Your task to perform on an android device: toggle improve location accuracy Image 0: 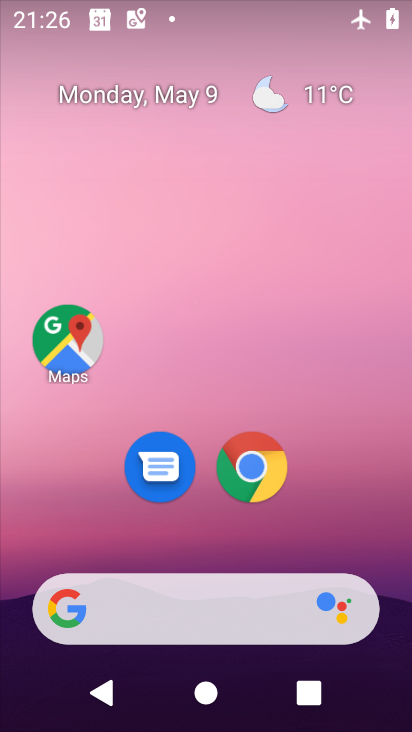
Step 0: drag from (313, 526) to (366, 248)
Your task to perform on an android device: toggle improve location accuracy Image 1: 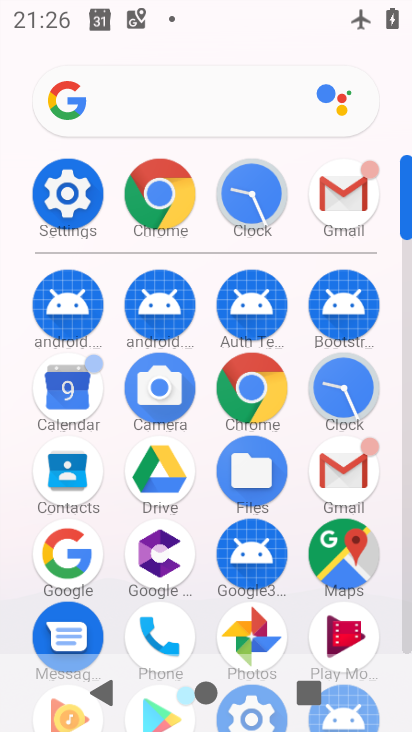
Step 1: click (57, 193)
Your task to perform on an android device: toggle improve location accuracy Image 2: 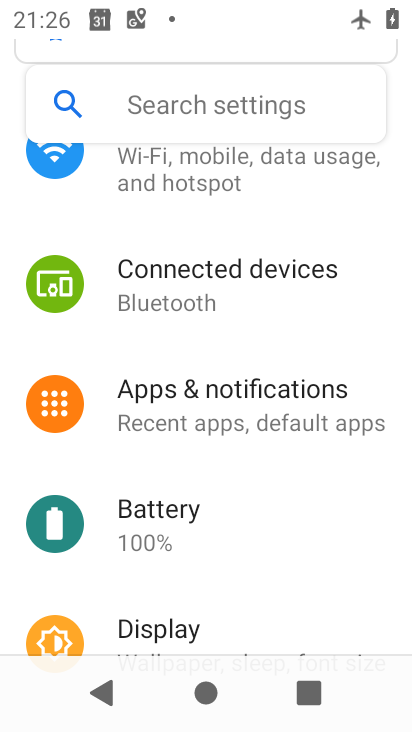
Step 2: drag from (178, 587) to (218, 307)
Your task to perform on an android device: toggle improve location accuracy Image 3: 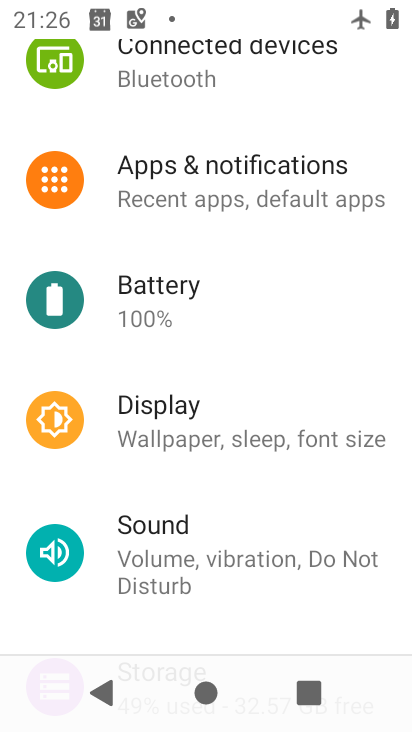
Step 3: drag from (194, 493) to (234, 129)
Your task to perform on an android device: toggle improve location accuracy Image 4: 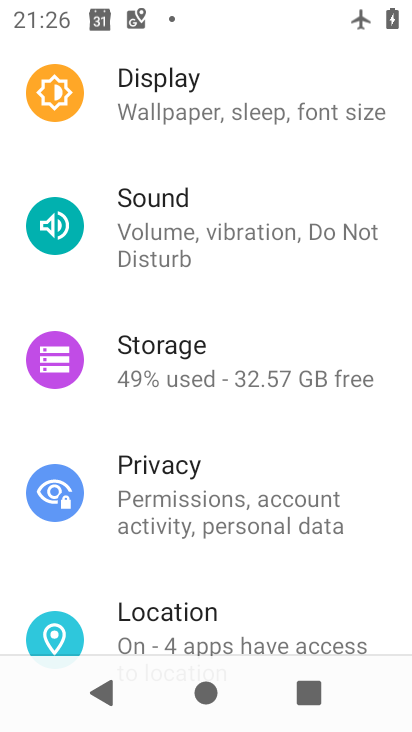
Step 4: drag from (218, 578) to (245, 260)
Your task to perform on an android device: toggle improve location accuracy Image 5: 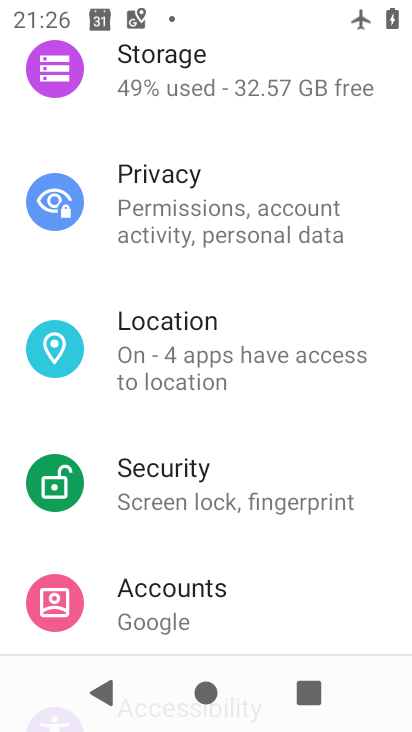
Step 5: click (222, 339)
Your task to perform on an android device: toggle improve location accuracy Image 6: 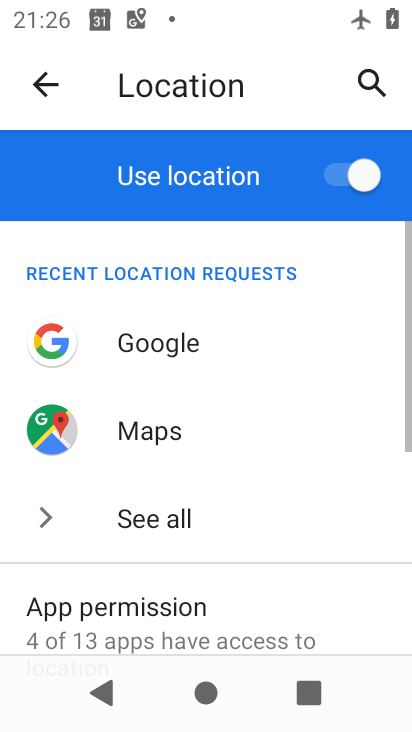
Step 6: drag from (129, 596) to (242, 172)
Your task to perform on an android device: toggle improve location accuracy Image 7: 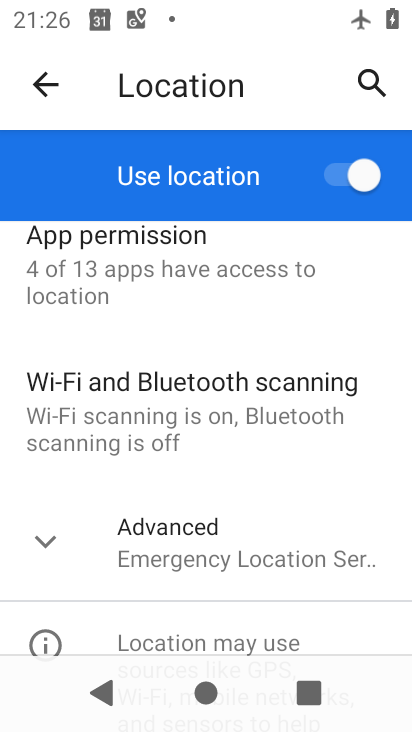
Step 7: click (148, 550)
Your task to perform on an android device: toggle improve location accuracy Image 8: 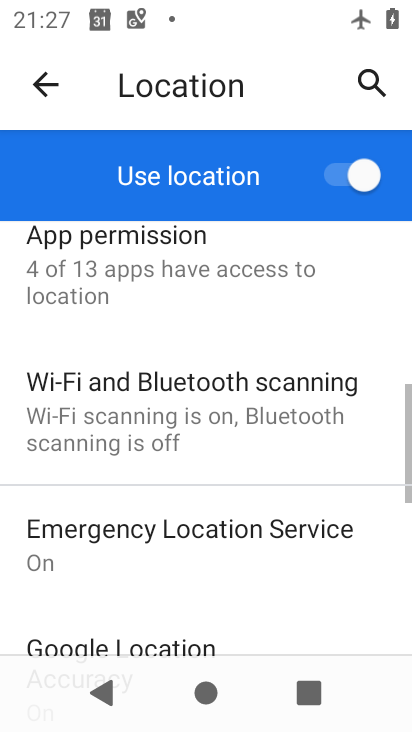
Step 8: drag from (156, 531) to (253, 218)
Your task to perform on an android device: toggle improve location accuracy Image 9: 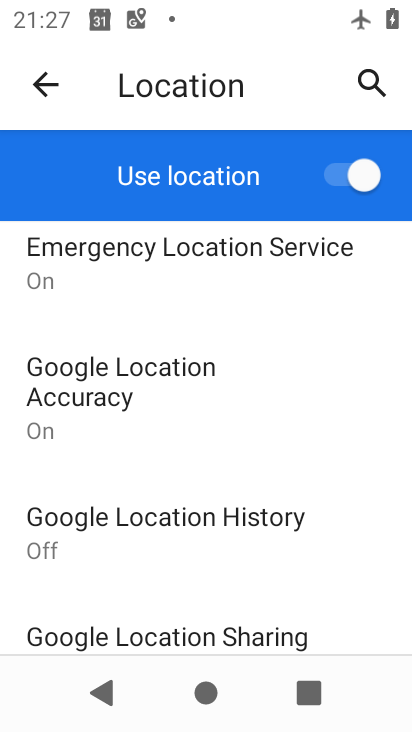
Step 9: drag from (210, 542) to (231, 413)
Your task to perform on an android device: toggle improve location accuracy Image 10: 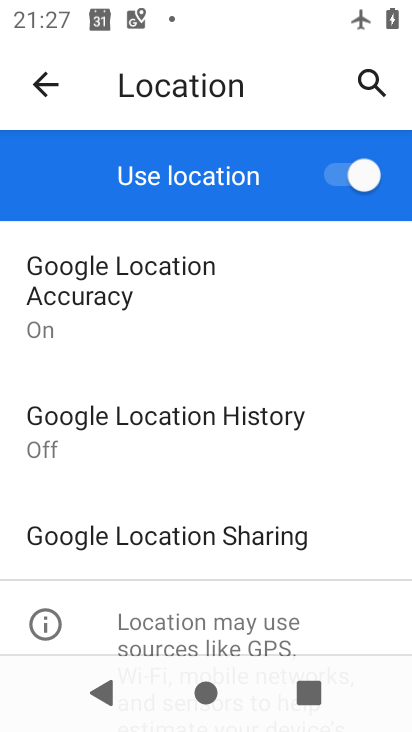
Step 10: click (179, 416)
Your task to perform on an android device: toggle improve location accuracy Image 11: 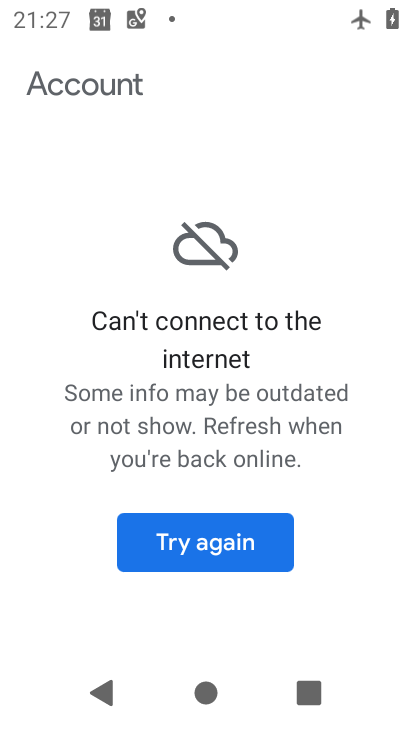
Step 11: task complete